Your task to perform on an android device: Open settings Image 0: 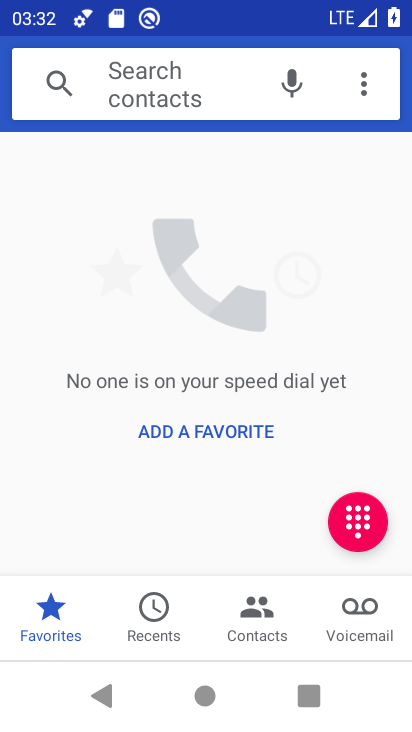
Step 0: press home button
Your task to perform on an android device: Open settings Image 1: 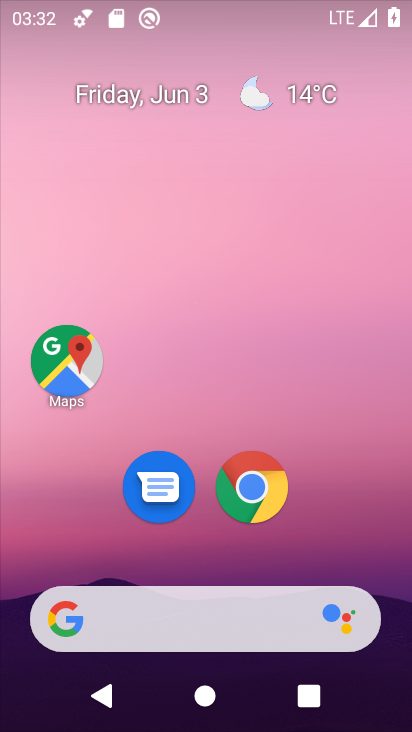
Step 1: drag from (335, 429) to (243, 0)
Your task to perform on an android device: Open settings Image 2: 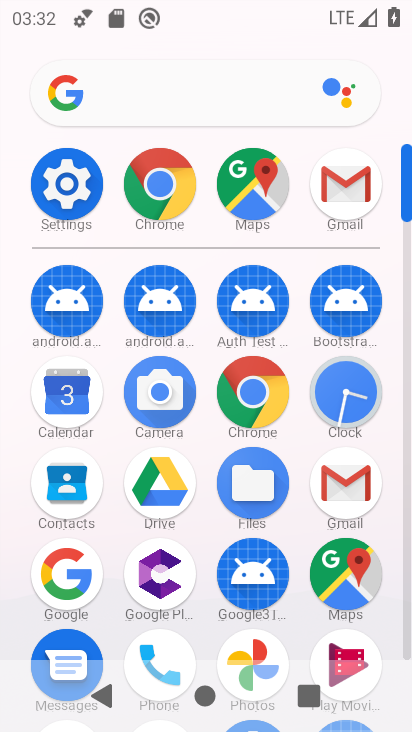
Step 2: click (49, 176)
Your task to perform on an android device: Open settings Image 3: 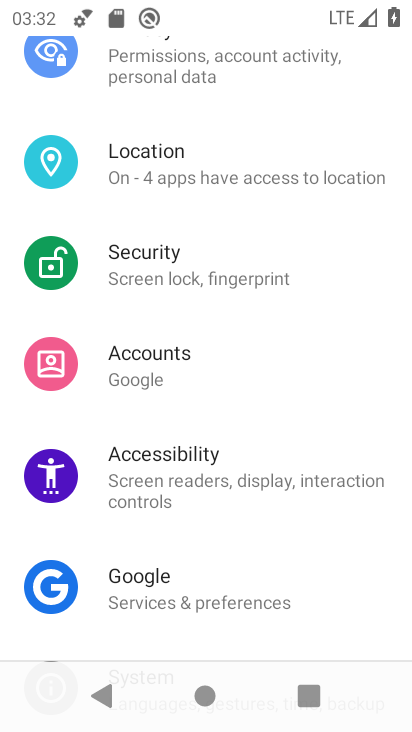
Step 3: task complete